Your task to perform on an android device: Do I have any events today? Image 0: 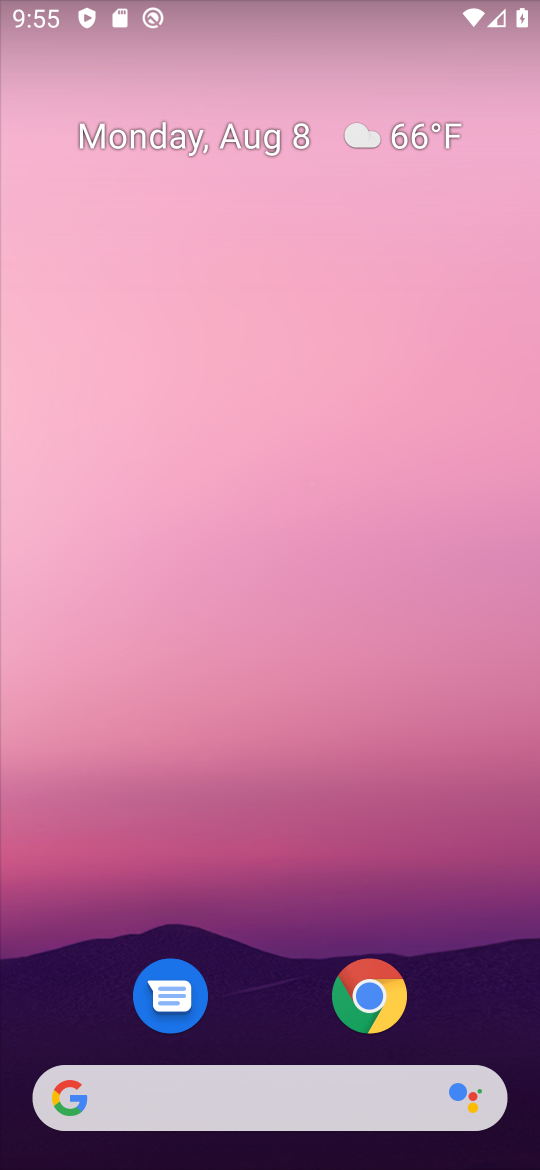
Step 0: drag from (266, 1075) to (258, 304)
Your task to perform on an android device: Do I have any events today? Image 1: 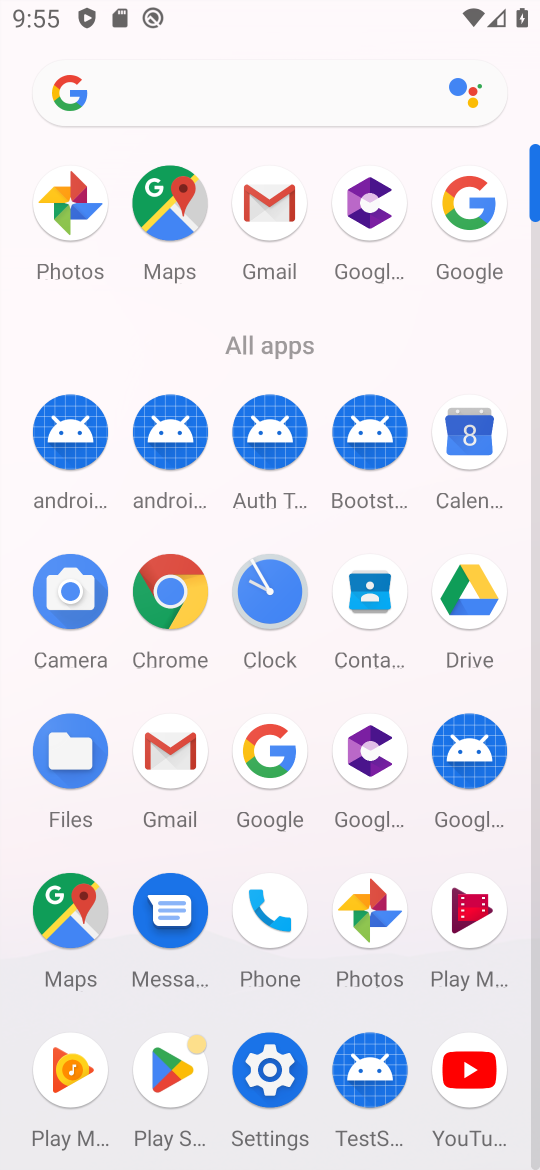
Step 1: click (472, 448)
Your task to perform on an android device: Do I have any events today? Image 2: 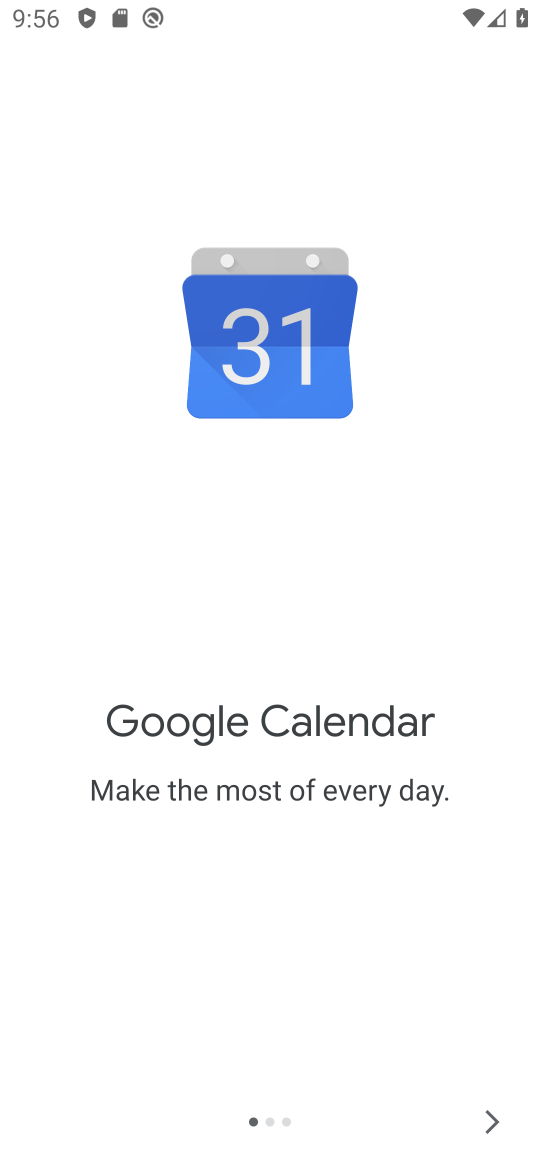
Step 2: click (495, 1118)
Your task to perform on an android device: Do I have any events today? Image 3: 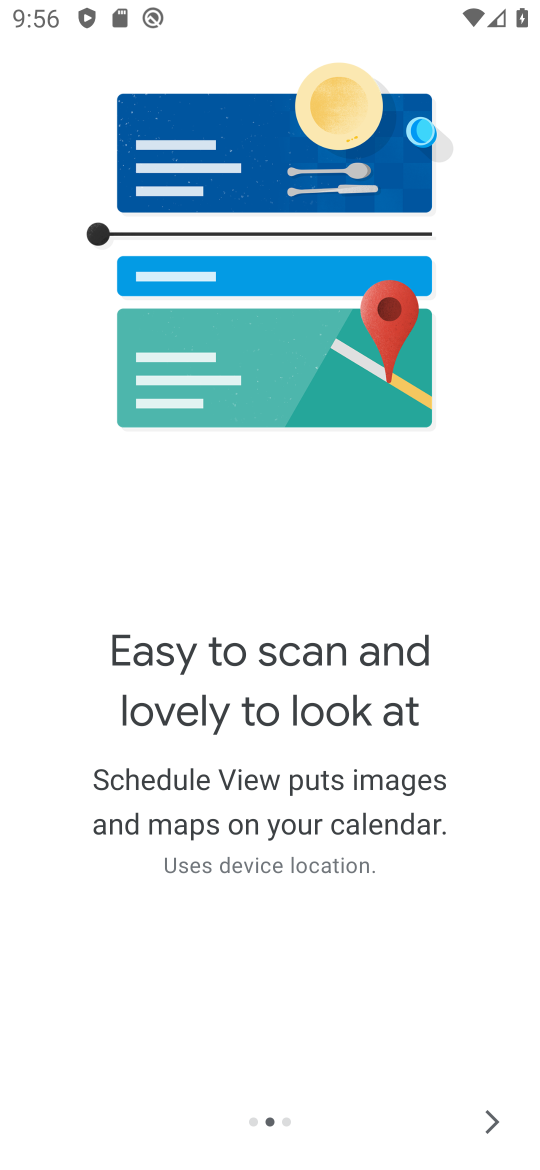
Step 3: click (496, 1119)
Your task to perform on an android device: Do I have any events today? Image 4: 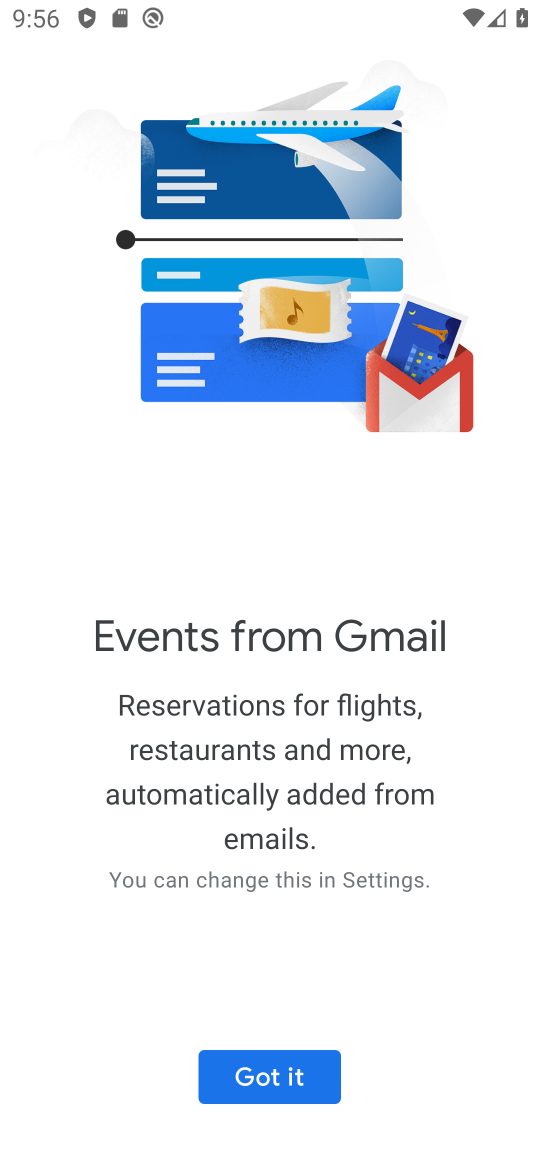
Step 4: click (299, 1090)
Your task to perform on an android device: Do I have any events today? Image 5: 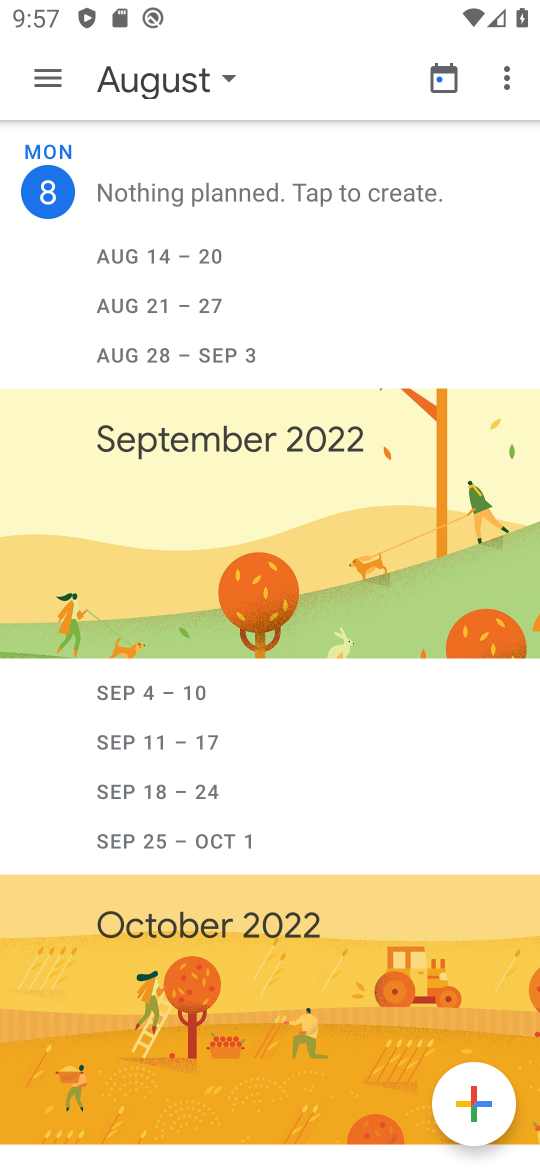
Step 5: click (166, 79)
Your task to perform on an android device: Do I have any events today? Image 6: 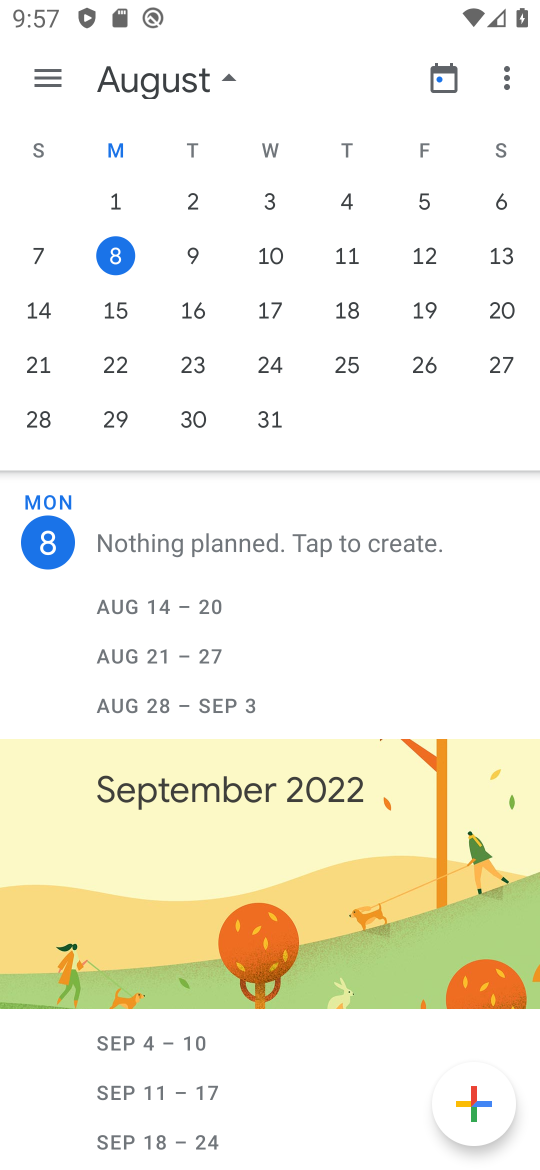
Step 6: click (119, 267)
Your task to perform on an android device: Do I have any events today? Image 7: 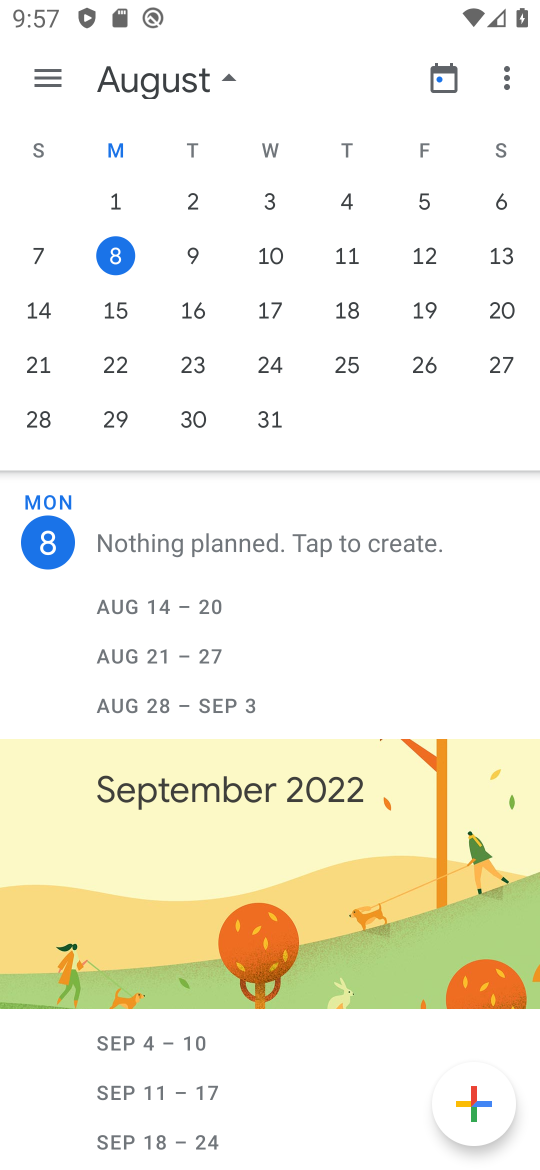
Step 7: task complete